Your task to perform on an android device: check data usage Image 0: 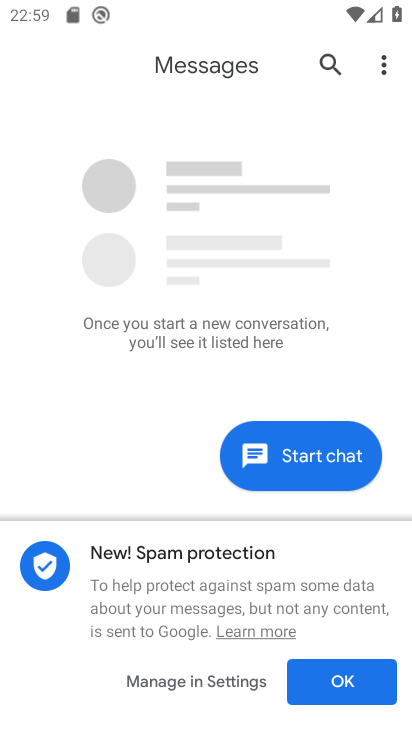
Step 0: press home button
Your task to perform on an android device: check data usage Image 1: 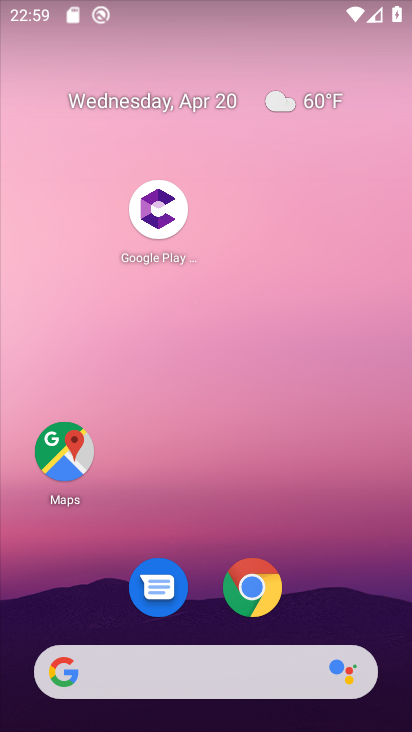
Step 1: drag from (207, 594) to (214, 77)
Your task to perform on an android device: check data usage Image 2: 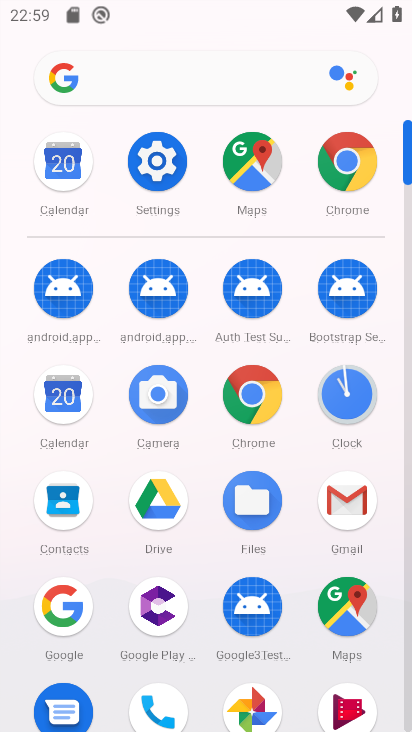
Step 2: click (156, 154)
Your task to perform on an android device: check data usage Image 3: 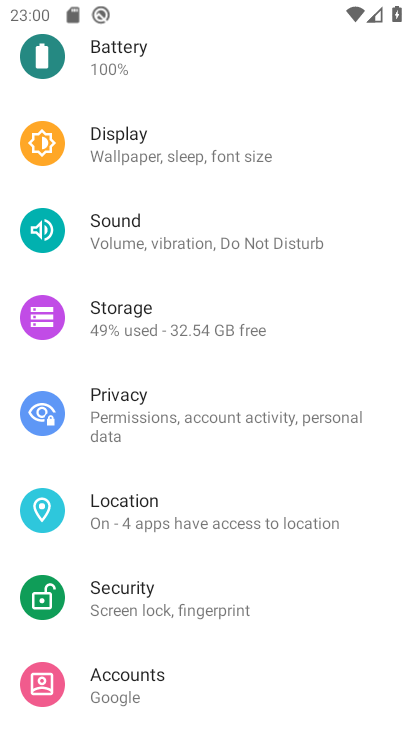
Step 3: drag from (171, 91) to (219, 723)
Your task to perform on an android device: check data usage Image 4: 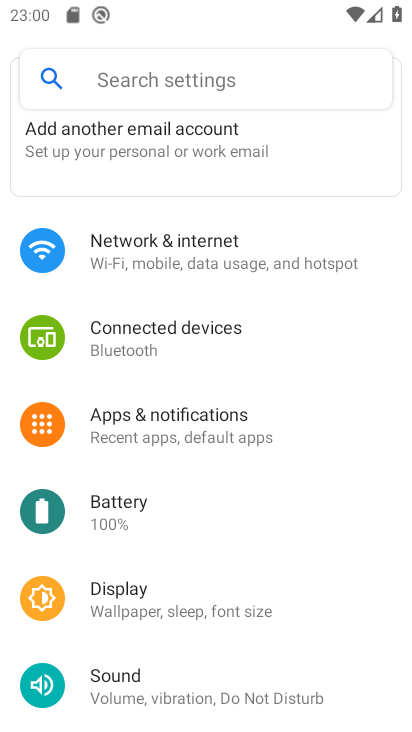
Step 4: click (182, 253)
Your task to perform on an android device: check data usage Image 5: 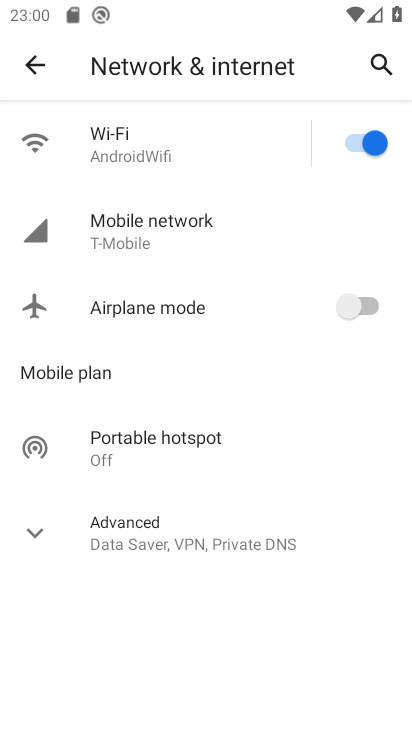
Step 5: click (163, 232)
Your task to perform on an android device: check data usage Image 6: 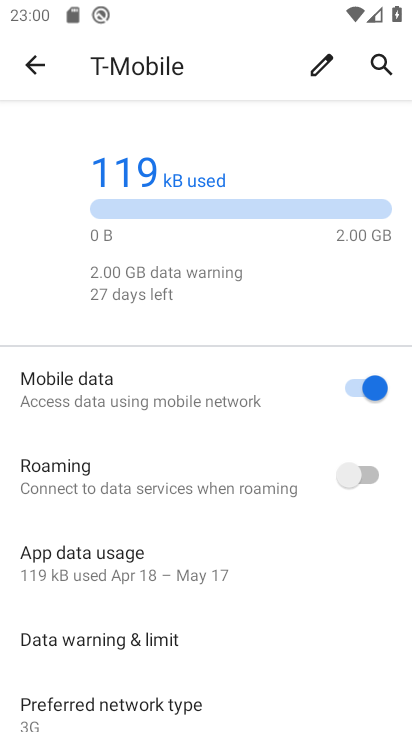
Step 6: click (163, 554)
Your task to perform on an android device: check data usage Image 7: 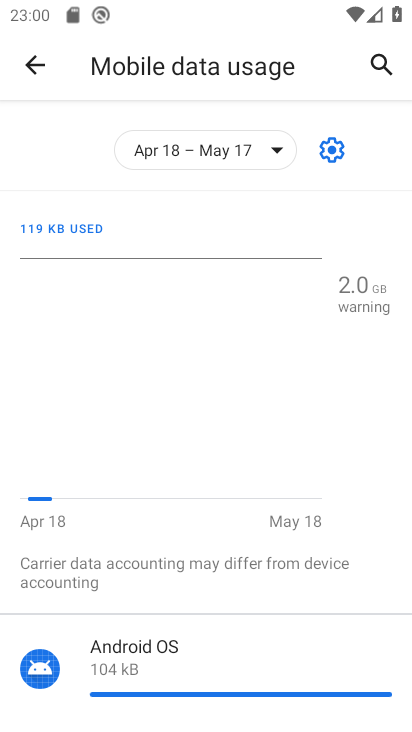
Step 7: task complete